Your task to perform on an android device: Is it going to rain tomorrow? Image 0: 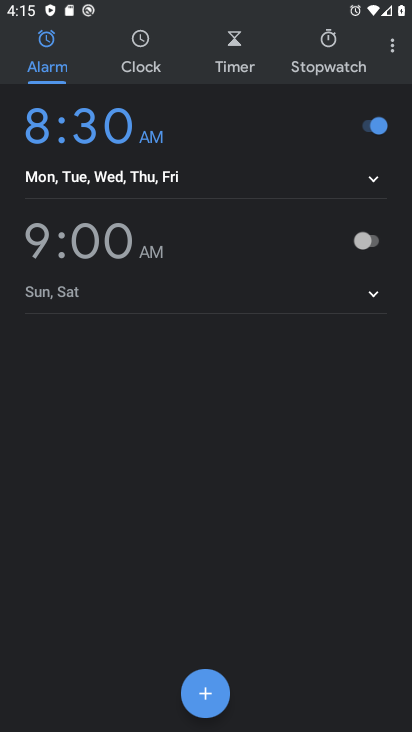
Step 0: press home button
Your task to perform on an android device: Is it going to rain tomorrow? Image 1: 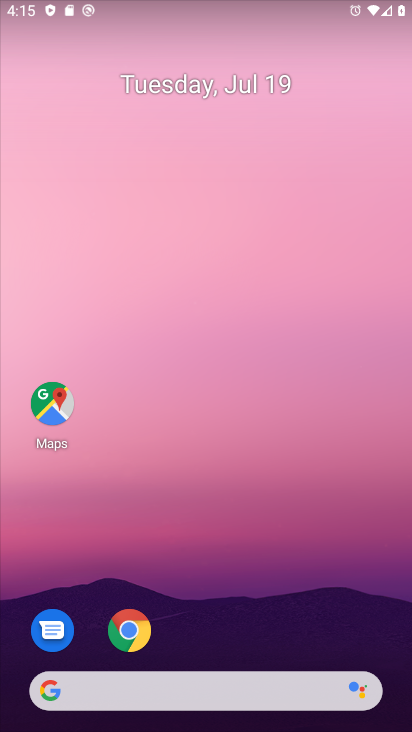
Step 1: click (153, 691)
Your task to perform on an android device: Is it going to rain tomorrow? Image 2: 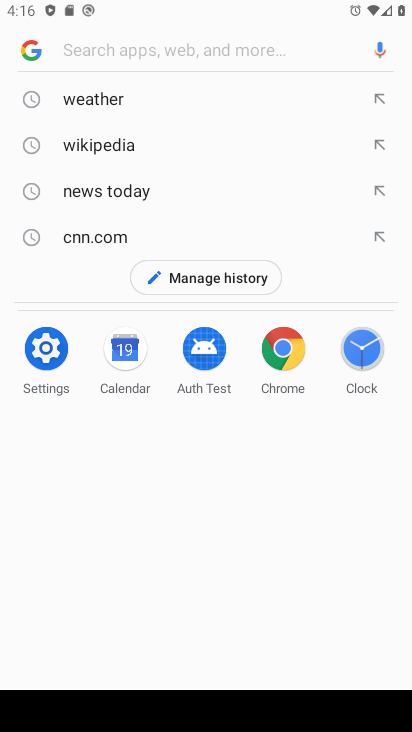
Step 2: click (93, 100)
Your task to perform on an android device: Is it going to rain tomorrow? Image 3: 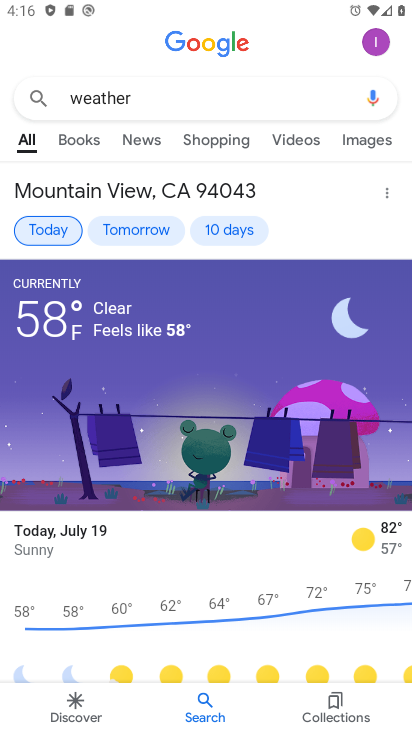
Step 3: click (117, 228)
Your task to perform on an android device: Is it going to rain tomorrow? Image 4: 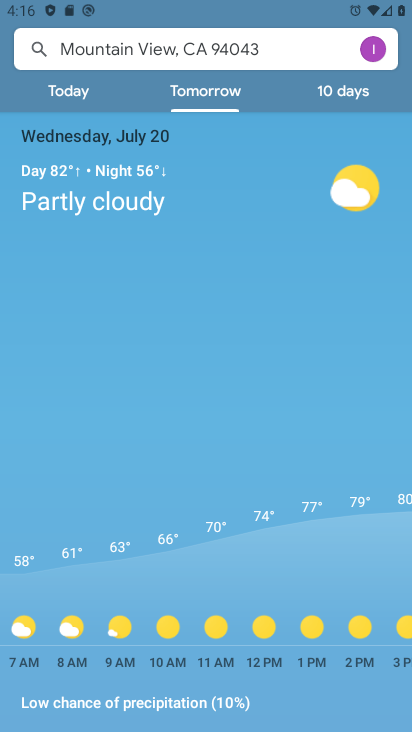
Step 4: task complete